Your task to perform on an android device: Open Google Chrome Image 0: 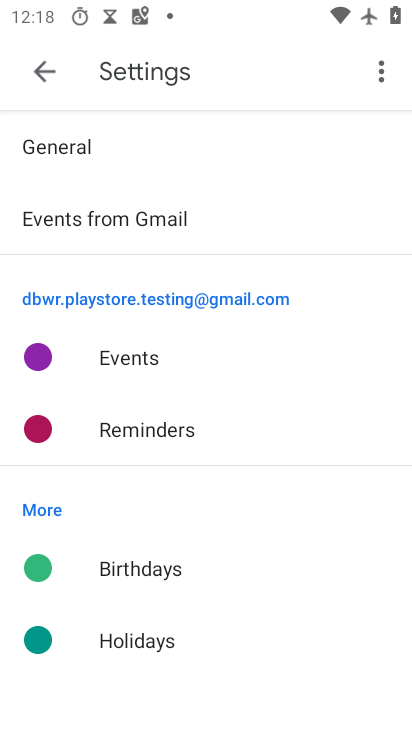
Step 0: press home button
Your task to perform on an android device: Open Google Chrome Image 1: 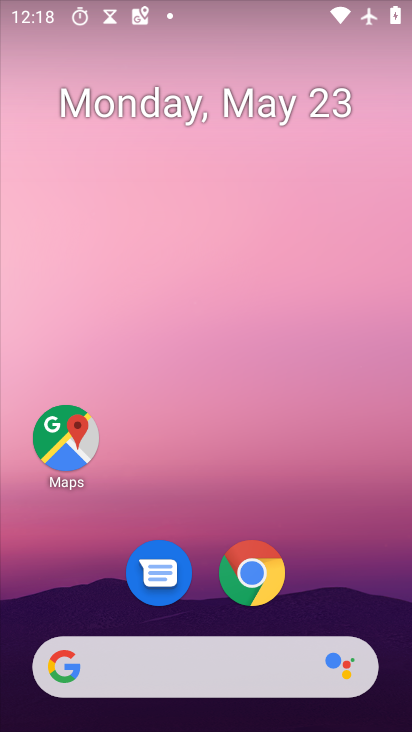
Step 1: click (244, 590)
Your task to perform on an android device: Open Google Chrome Image 2: 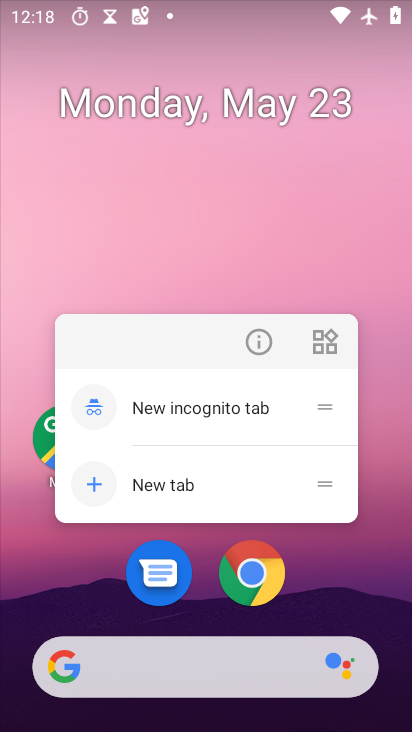
Step 2: click (263, 594)
Your task to perform on an android device: Open Google Chrome Image 3: 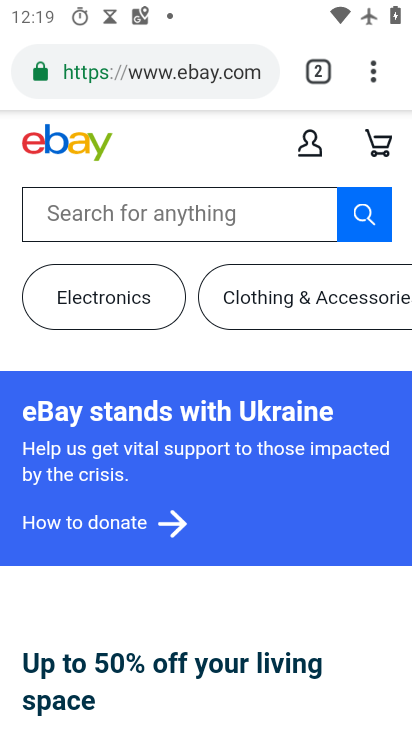
Step 3: task complete